Your task to perform on an android device: turn on priority inbox in the gmail app Image 0: 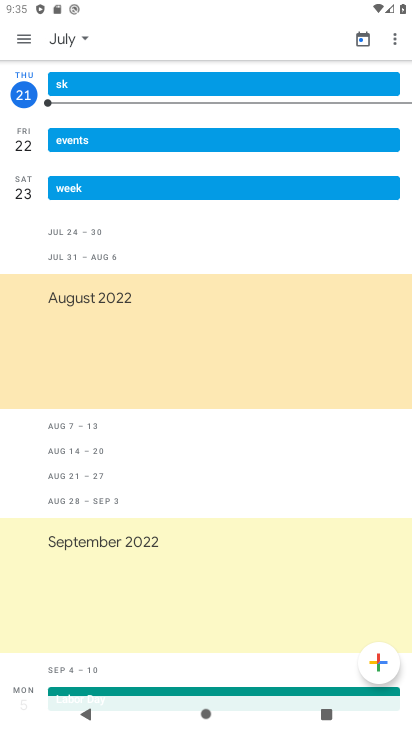
Step 0: press home button
Your task to perform on an android device: turn on priority inbox in the gmail app Image 1: 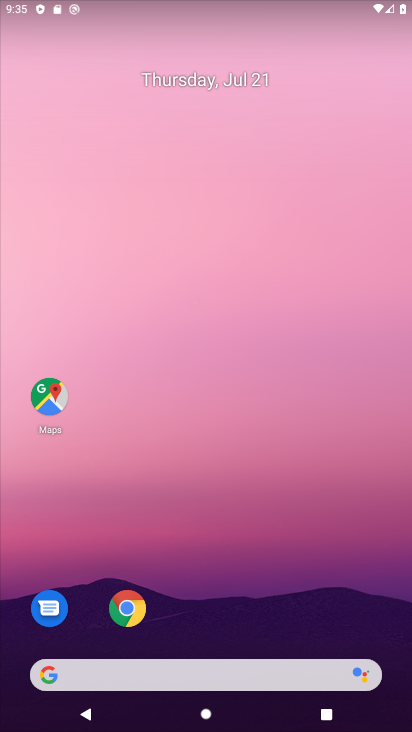
Step 1: drag from (222, 677) to (173, 104)
Your task to perform on an android device: turn on priority inbox in the gmail app Image 2: 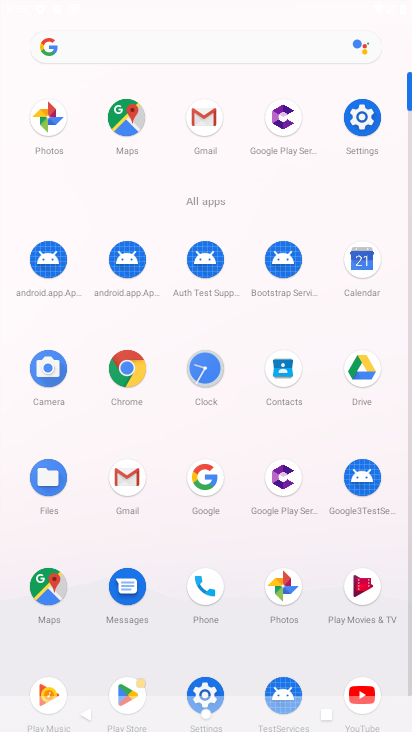
Step 2: click (121, 493)
Your task to perform on an android device: turn on priority inbox in the gmail app Image 3: 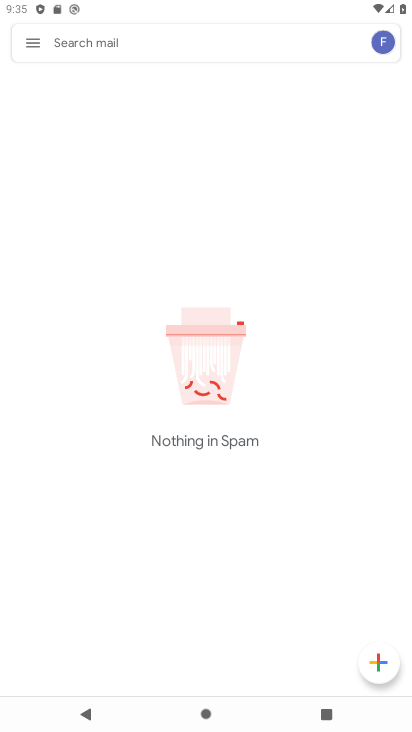
Step 3: click (36, 46)
Your task to perform on an android device: turn on priority inbox in the gmail app Image 4: 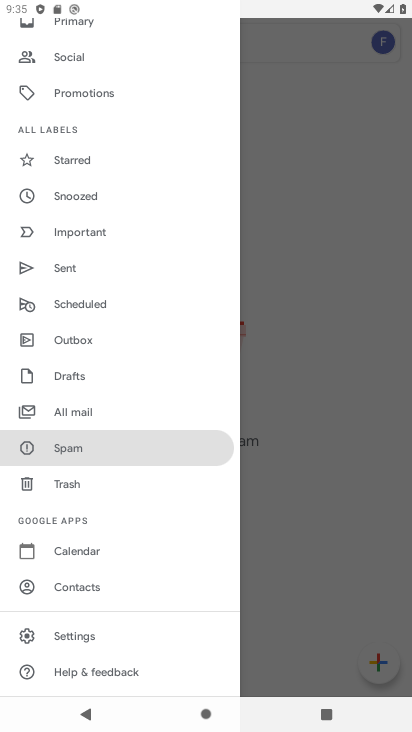
Step 4: click (61, 625)
Your task to perform on an android device: turn on priority inbox in the gmail app Image 5: 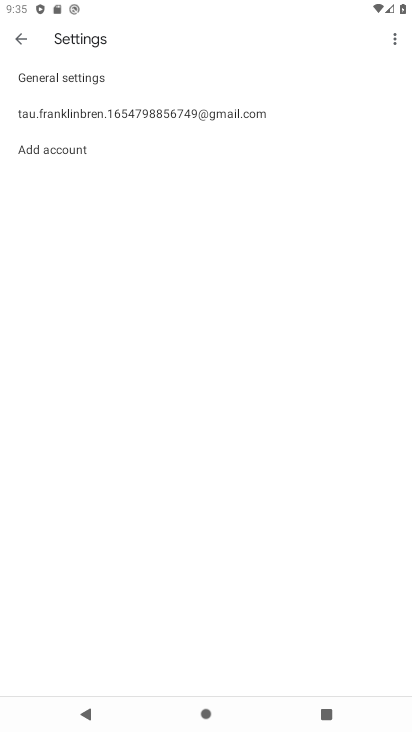
Step 5: click (50, 120)
Your task to perform on an android device: turn on priority inbox in the gmail app Image 6: 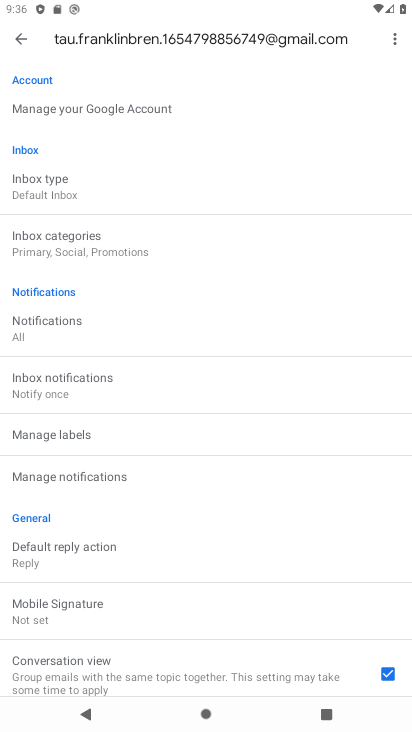
Step 6: click (43, 200)
Your task to perform on an android device: turn on priority inbox in the gmail app Image 7: 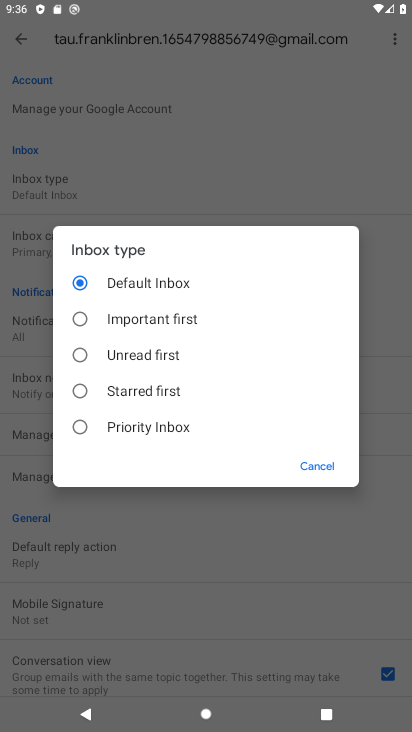
Step 7: click (135, 420)
Your task to perform on an android device: turn on priority inbox in the gmail app Image 8: 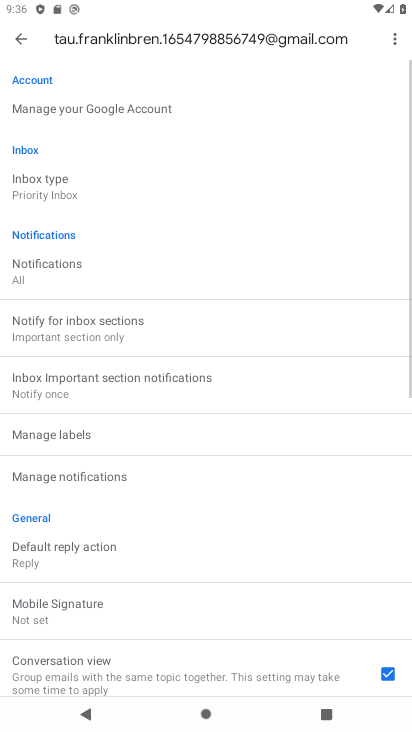
Step 8: task complete